Your task to perform on an android device: turn on the 12-hour format for clock Image 0: 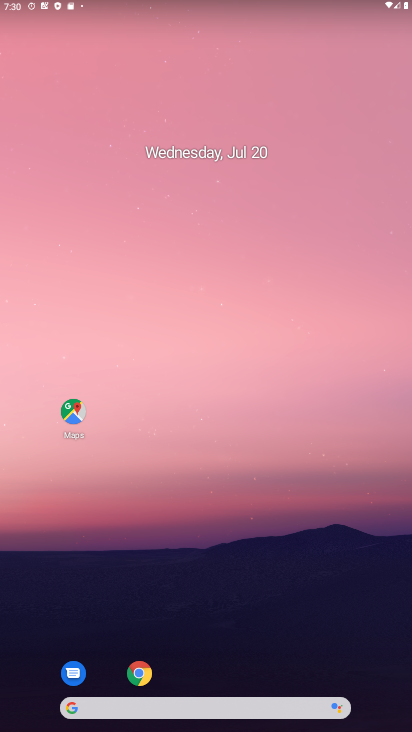
Step 0: drag from (386, 674) to (104, 19)
Your task to perform on an android device: turn on the 12-hour format for clock Image 1: 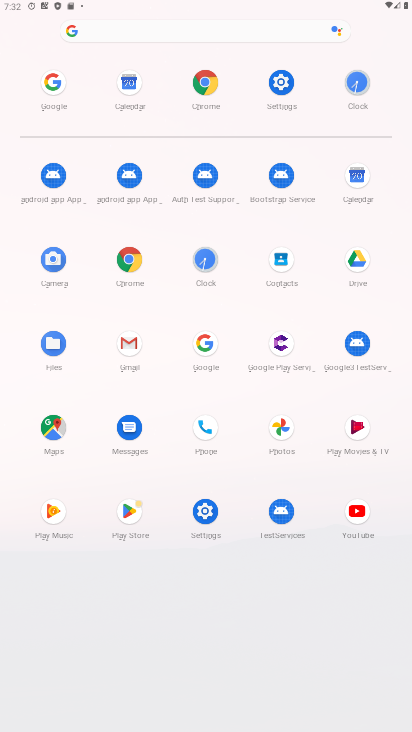
Step 1: click (209, 270)
Your task to perform on an android device: turn on the 12-hour format for clock Image 2: 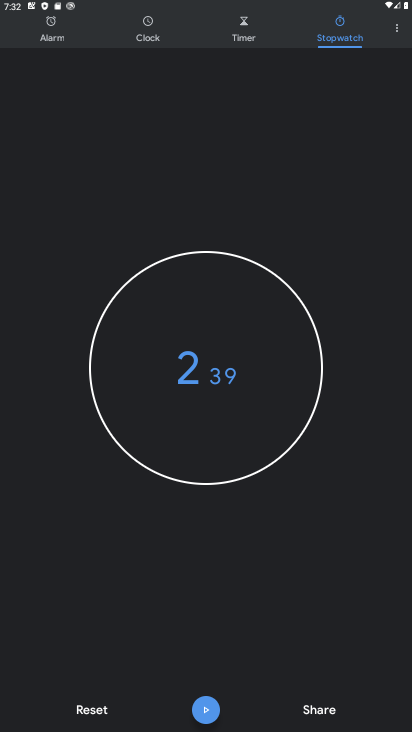
Step 2: click (398, 26)
Your task to perform on an android device: turn on the 12-hour format for clock Image 3: 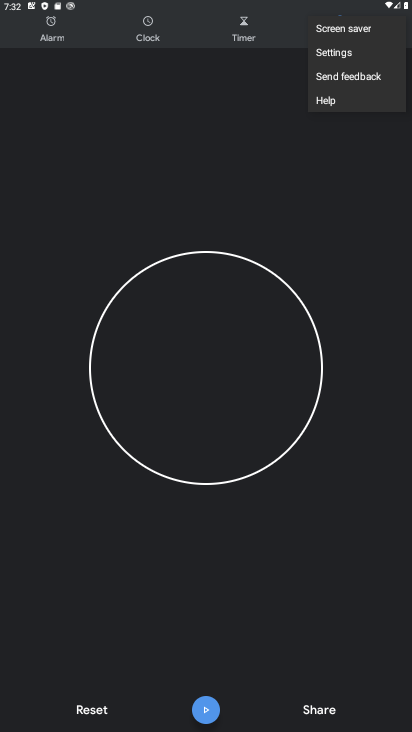
Step 3: click (349, 54)
Your task to perform on an android device: turn on the 12-hour format for clock Image 4: 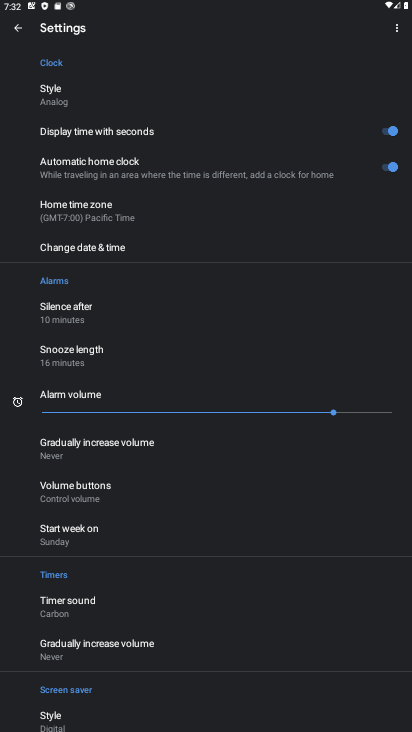
Step 4: click (103, 252)
Your task to perform on an android device: turn on the 12-hour format for clock Image 5: 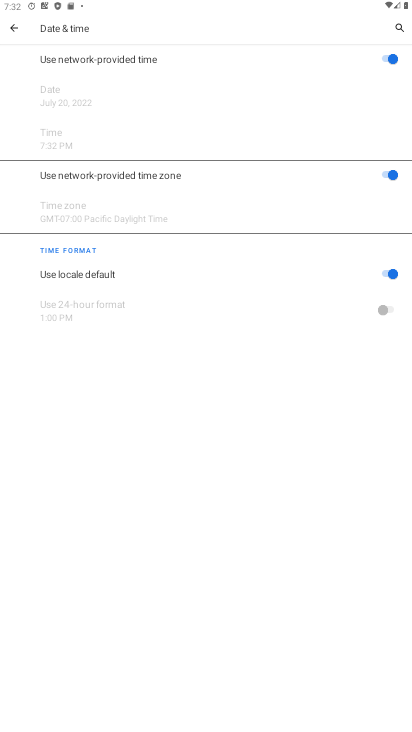
Step 5: task complete